Your task to perform on an android device: What's on my calendar tomorrow? Image 0: 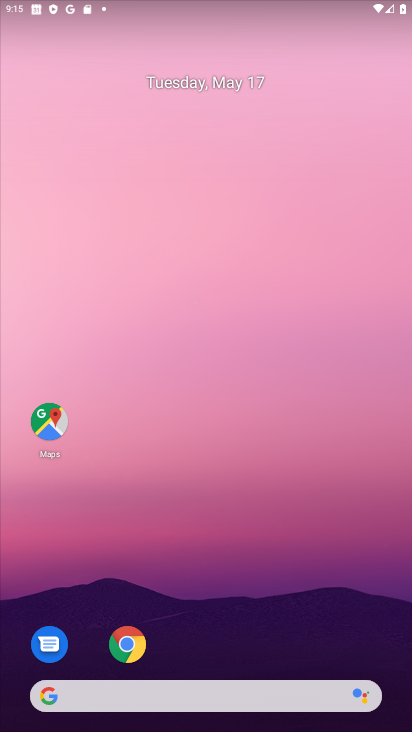
Step 0: click (191, 84)
Your task to perform on an android device: What's on my calendar tomorrow? Image 1: 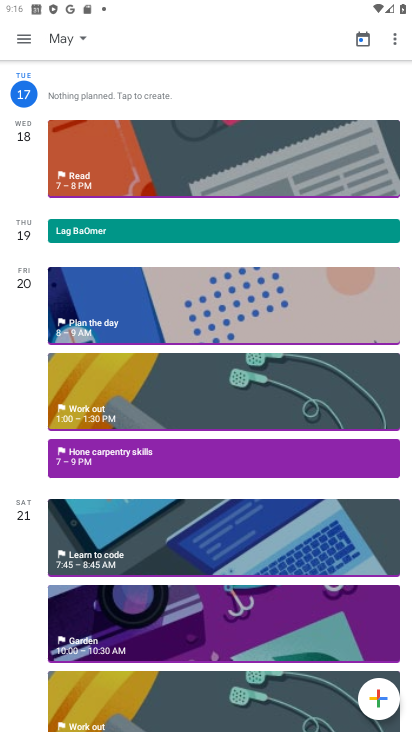
Step 1: click (72, 39)
Your task to perform on an android device: What's on my calendar tomorrow? Image 2: 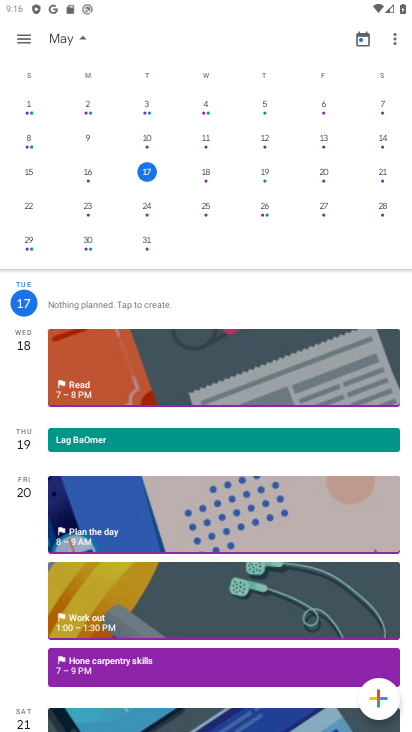
Step 2: click (212, 181)
Your task to perform on an android device: What's on my calendar tomorrow? Image 3: 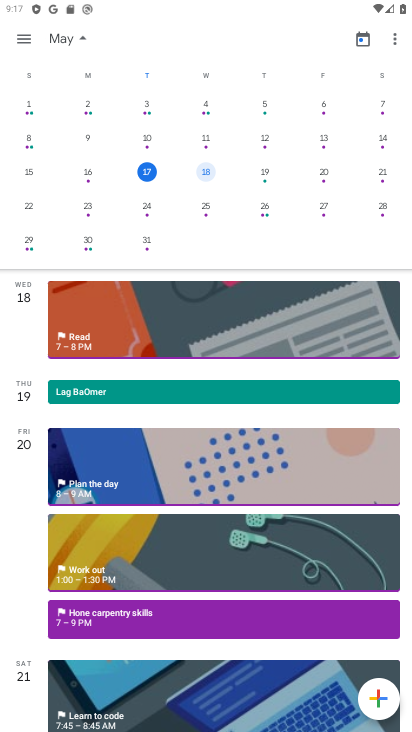
Step 3: task complete